Your task to perform on an android device: Go to Reddit.com Image 0: 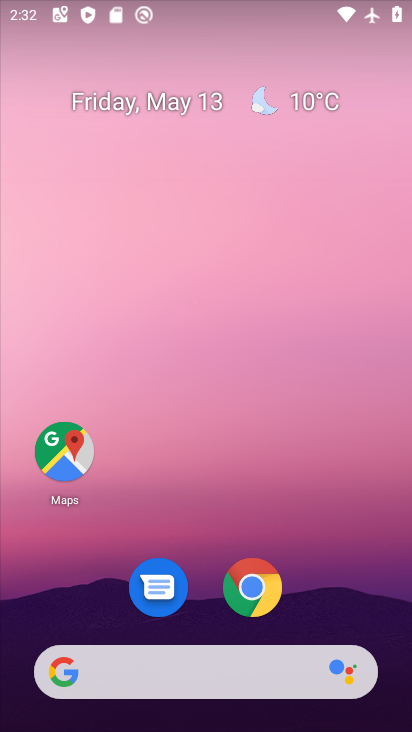
Step 0: click (263, 594)
Your task to perform on an android device: Go to Reddit.com Image 1: 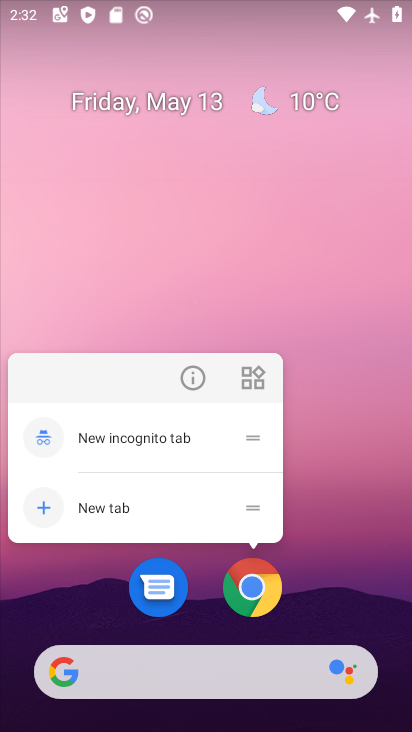
Step 1: click (253, 593)
Your task to perform on an android device: Go to Reddit.com Image 2: 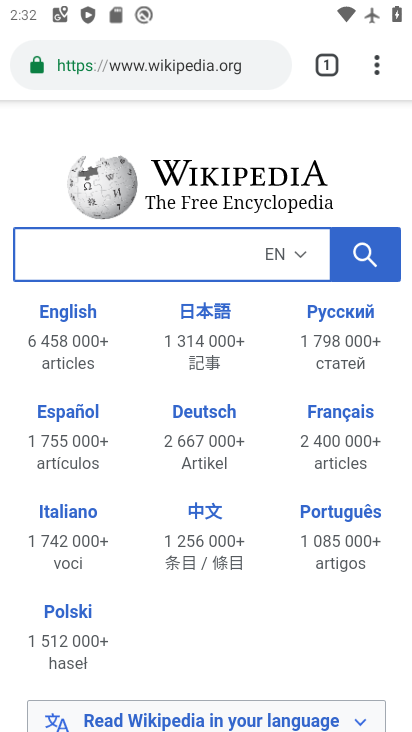
Step 2: click (111, 65)
Your task to perform on an android device: Go to Reddit.com Image 3: 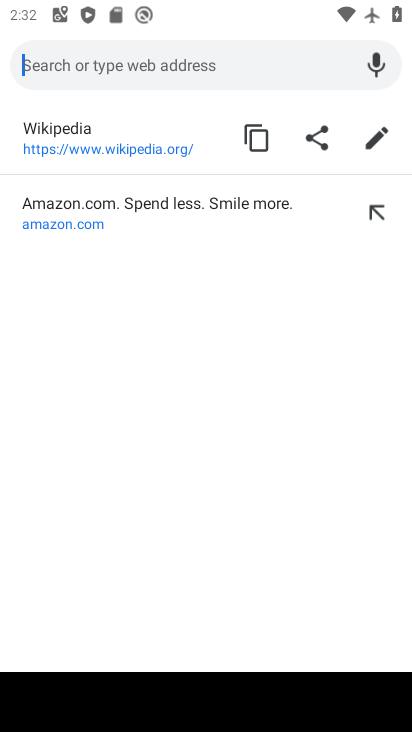
Step 3: type "Reddit.com"
Your task to perform on an android device: Go to Reddit.com Image 4: 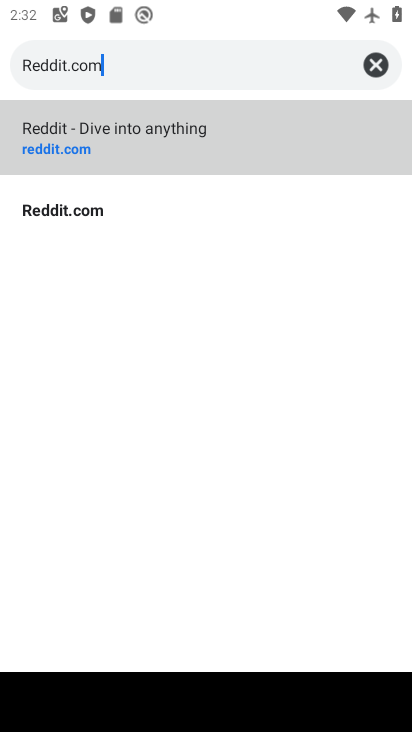
Step 4: click (75, 132)
Your task to perform on an android device: Go to Reddit.com Image 5: 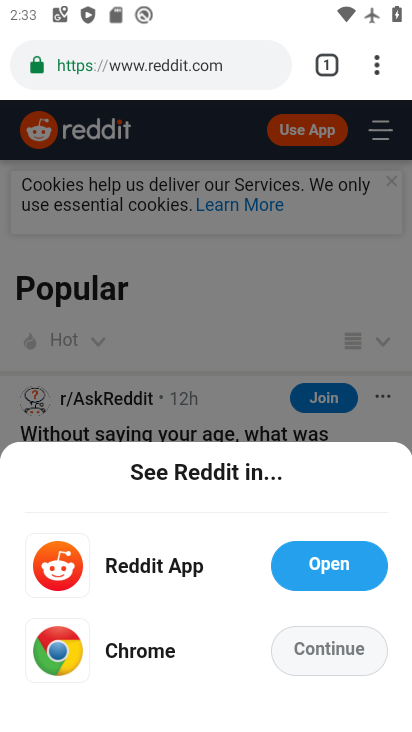
Step 5: task complete